Your task to perform on an android device: Open network settings Image 0: 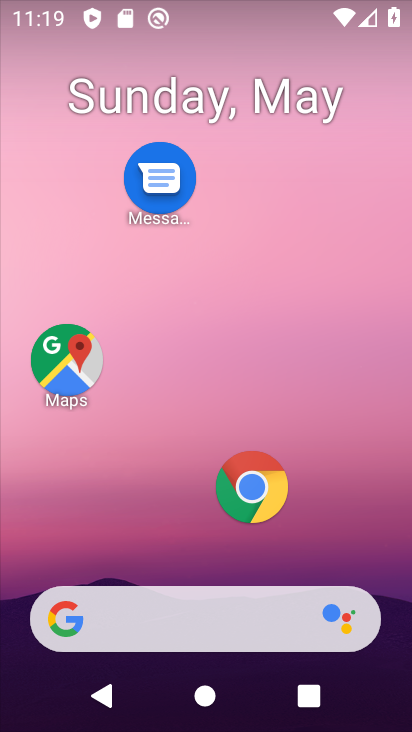
Step 0: drag from (169, 559) to (217, 1)
Your task to perform on an android device: Open network settings Image 1: 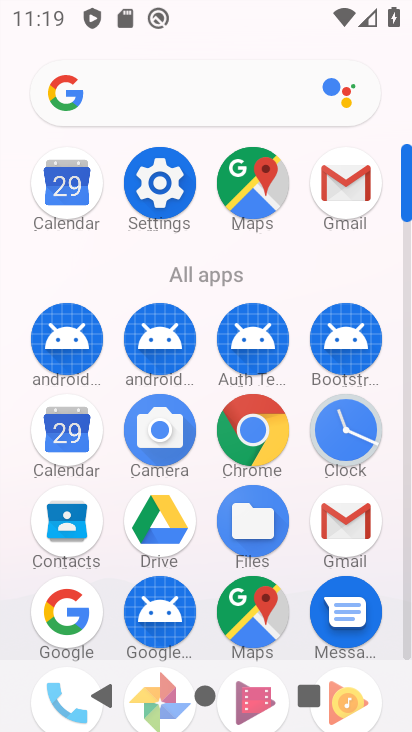
Step 1: click (157, 177)
Your task to perform on an android device: Open network settings Image 2: 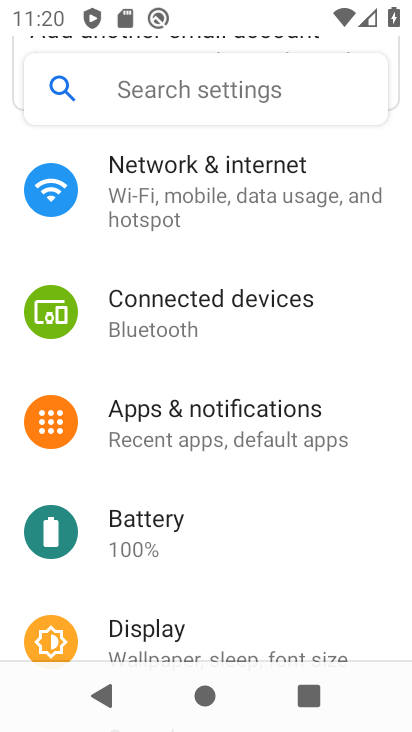
Step 2: click (242, 186)
Your task to perform on an android device: Open network settings Image 3: 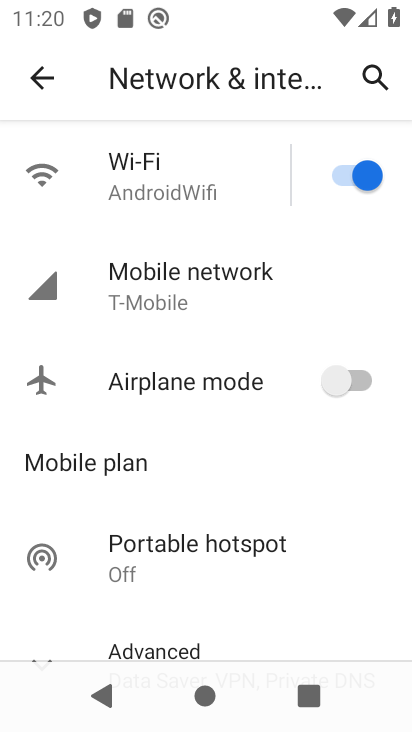
Step 3: click (148, 282)
Your task to perform on an android device: Open network settings Image 4: 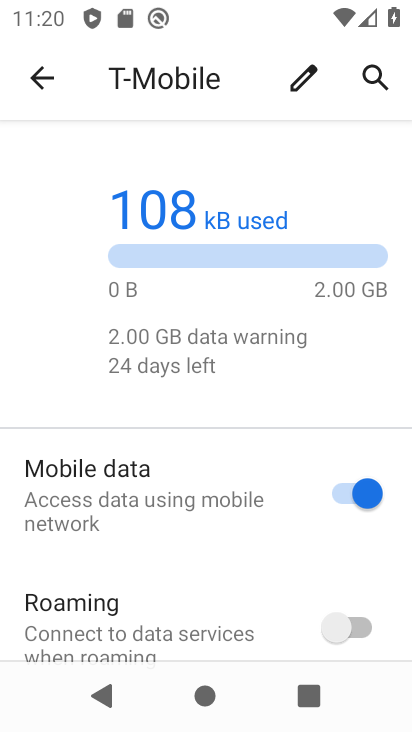
Step 4: task complete